Your task to perform on an android device: Go to network settings Image 0: 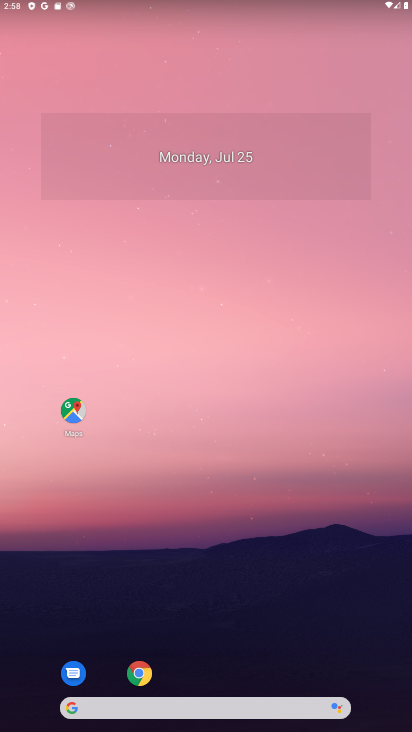
Step 0: drag from (251, 218) to (258, 173)
Your task to perform on an android device: Go to network settings Image 1: 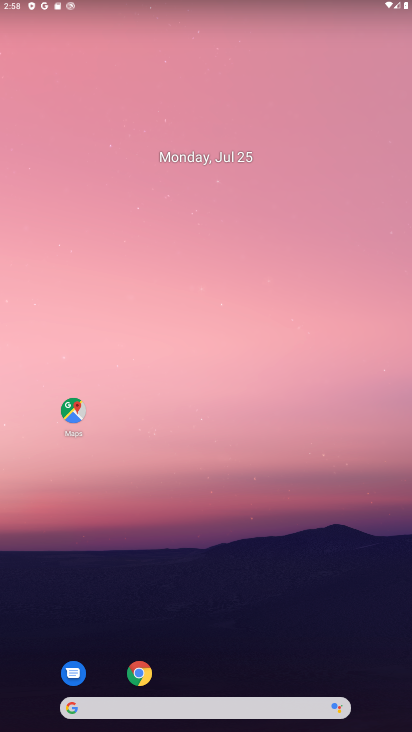
Step 1: drag from (276, 575) to (271, 199)
Your task to perform on an android device: Go to network settings Image 2: 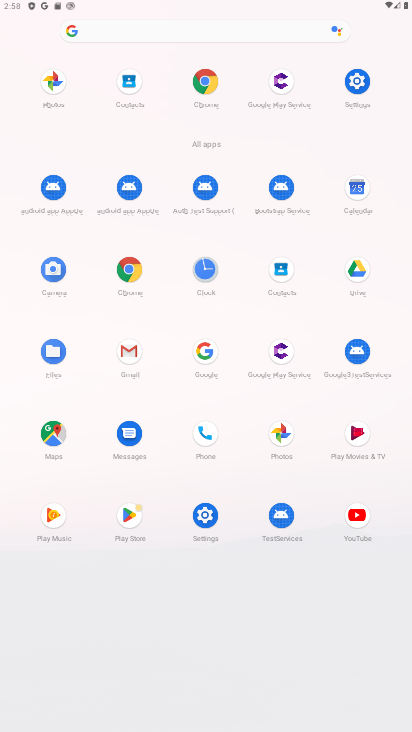
Step 2: click (214, 530)
Your task to perform on an android device: Go to network settings Image 3: 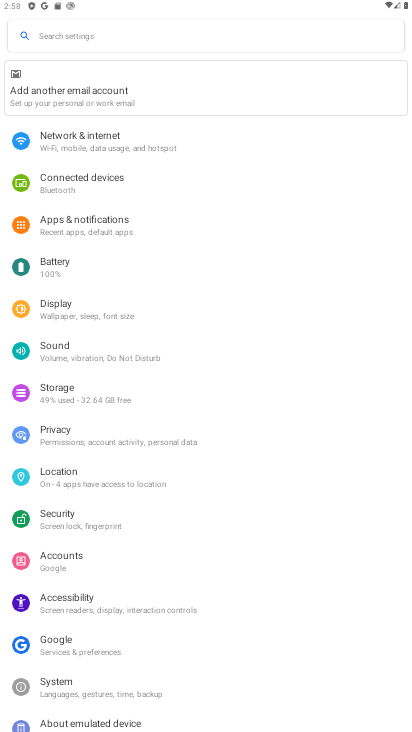
Step 3: click (79, 135)
Your task to perform on an android device: Go to network settings Image 4: 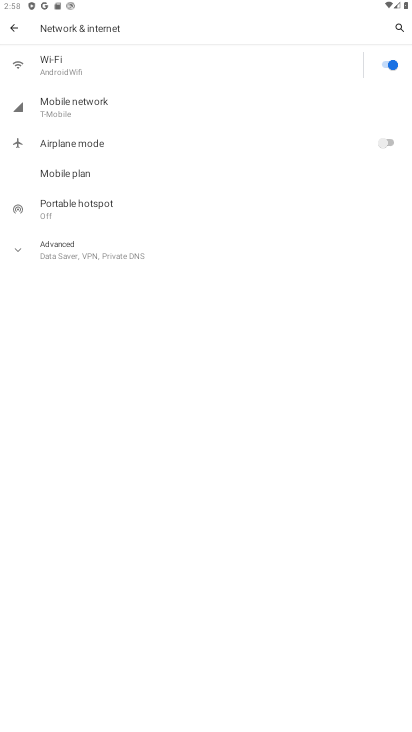
Step 4: task complete